Your task to perform on an android device: Search for pizza restaurants on Maps Image 0: 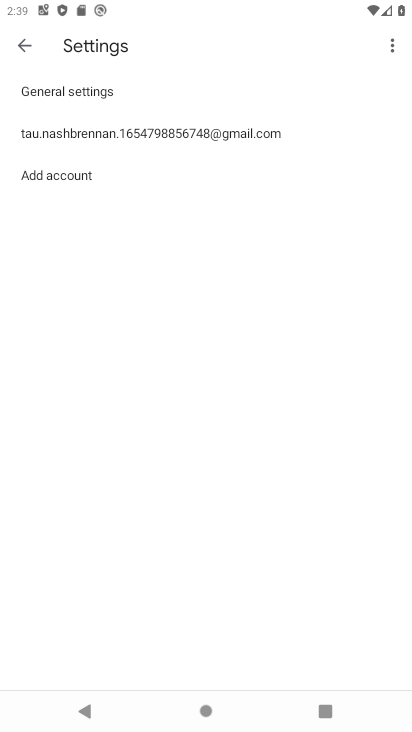
Step 0: press home button
Your task to perform on an android device: Search for pizza restaurants on Maps Image 1: 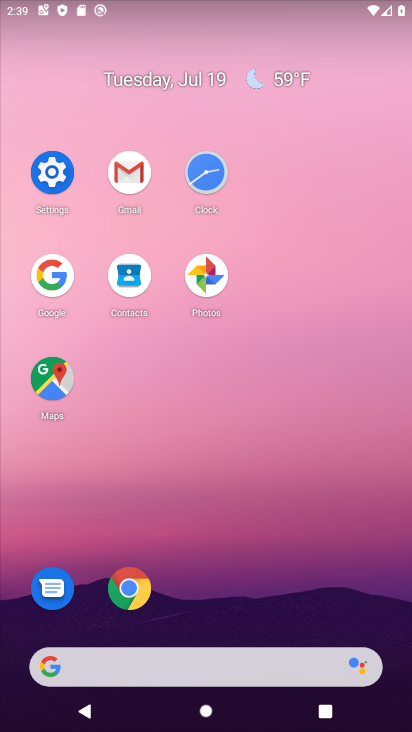
Step 1: click (56, 371)
Your task to perform on an android device: Search for pizza restaurants on Maps Image 2: 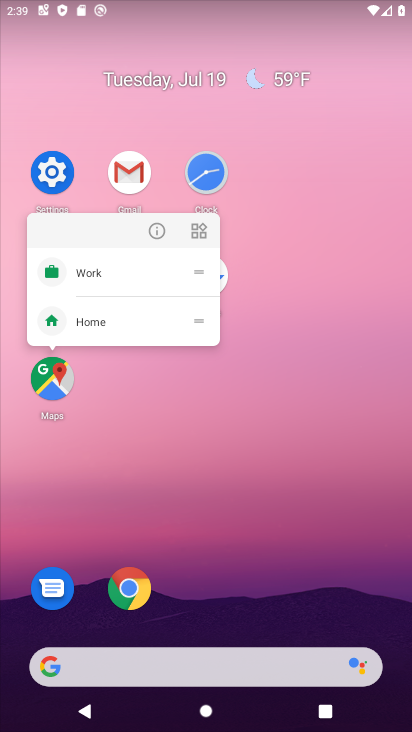
Step 2: click (58, 388)
Your task to perform on an android device: Search for pizza restaurants on Maps Image 3: 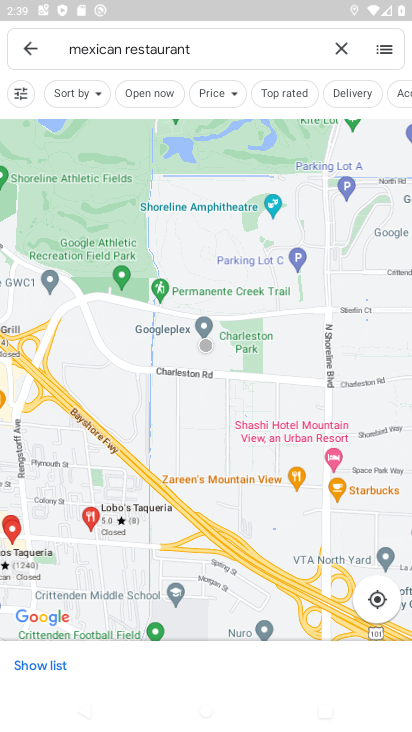
Step 3: click (344, 49)
Your task to perform on an android device: Search for pizza restaurants on Maps Image 4: 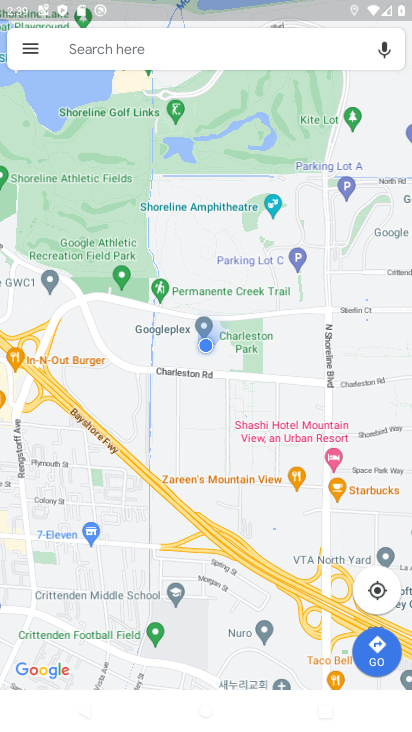
Step 4: click (212, 46)
Your task to perform on an android device: Search for pizza restaurants on Maps Image 5: 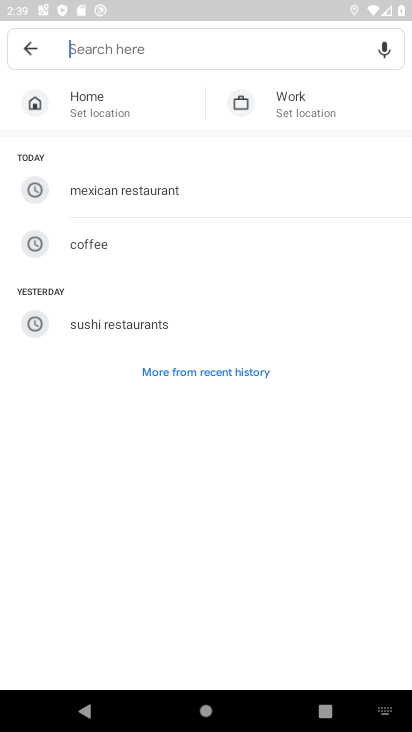
Step 5: type "pizza restaurants"
Your task to perform on an android device: Search for pizza restaurants on Maps Image 6: 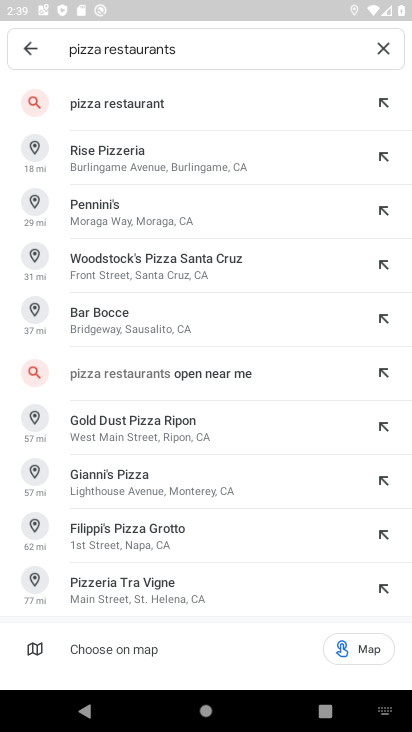
Step 6: click (176, 95)
Your task to perform on an android device: Search for pizza restaurants on Maps Image 7: 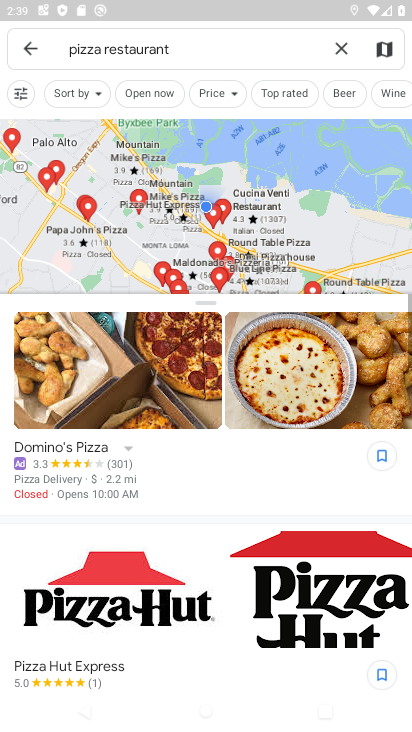
Step 7: task complete